Your task to perform on an android device: Open Chrome and go to settings Image 0: 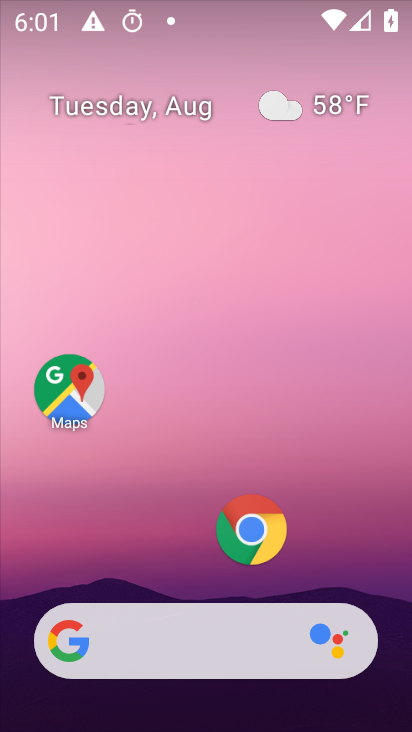
Step 0: click (228, 534)
Your task to perform on an android device: Open Chrome and go to settings Image 1: 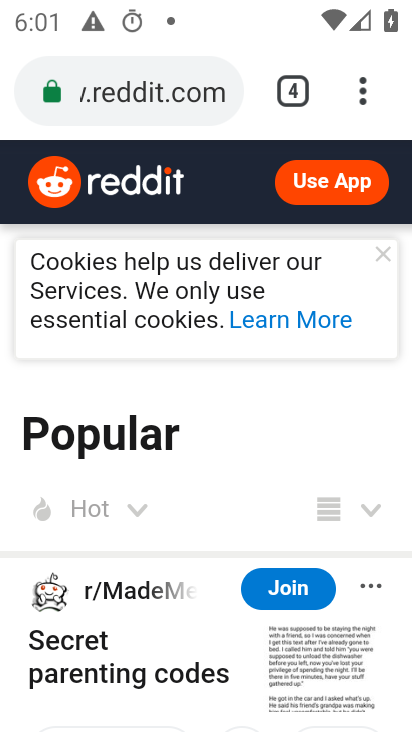
Step 1: click (366, 87)
Your task to perform on an android device: Open Chrome and go to settings Image 2: 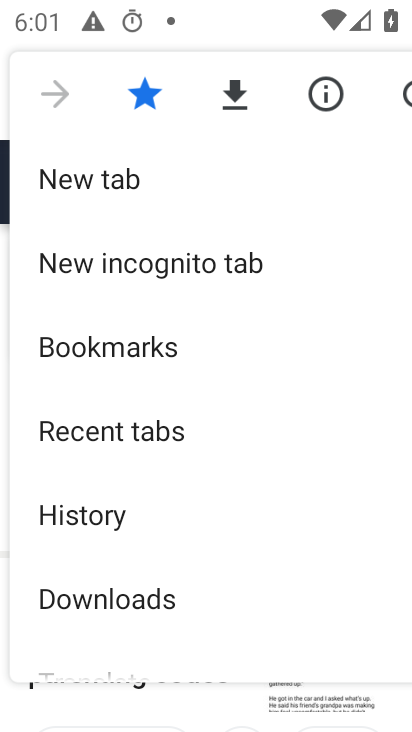
Step 2: drag from (151, 596) to (190, 173)
Your task to perform on an android device: Open Chrome and go to settings Image 3: 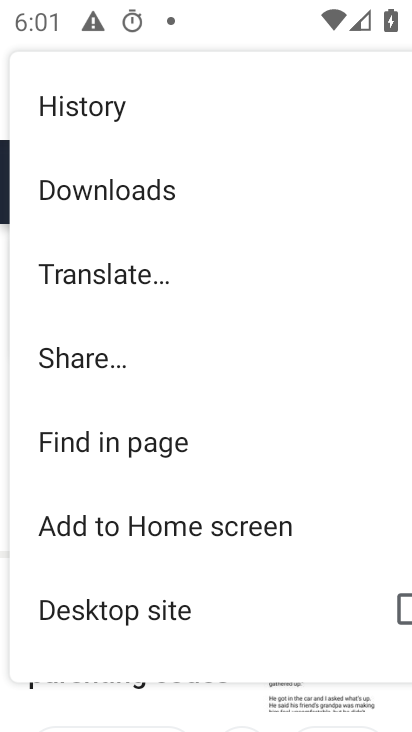
Step 3: drag from (129, 600) to (173, 275)
Your task to perform on an android device: Open Chrome and go to settings Image 4: 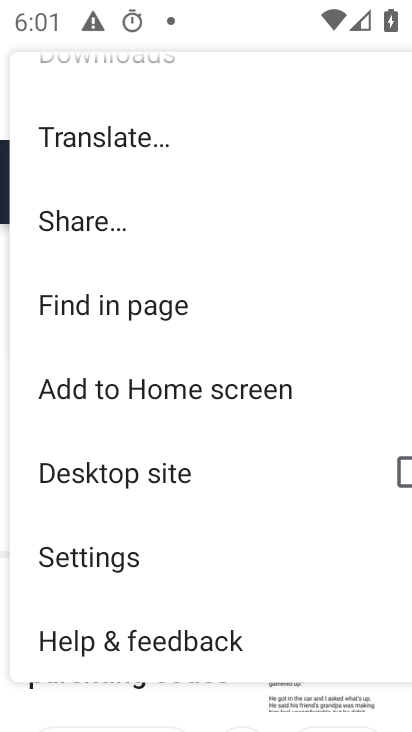
Step 4: click (119, 554)
Your task to perform on an android device: Open Chrome and go to settings Image 5: 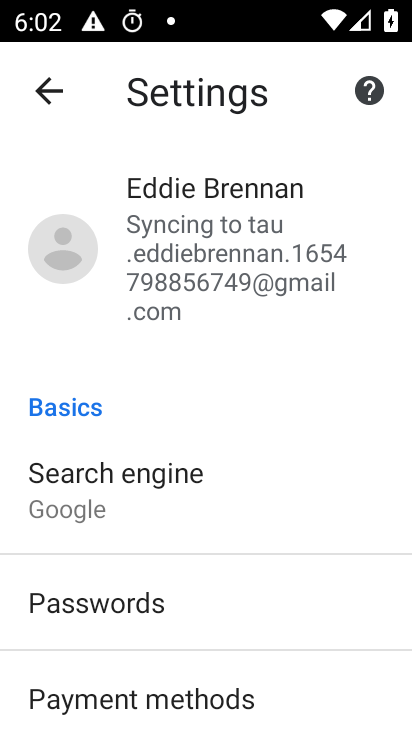
Step 5: task complete